Your task to perform on an android device: Search for seafood restaurants on Google Maps Image 0: 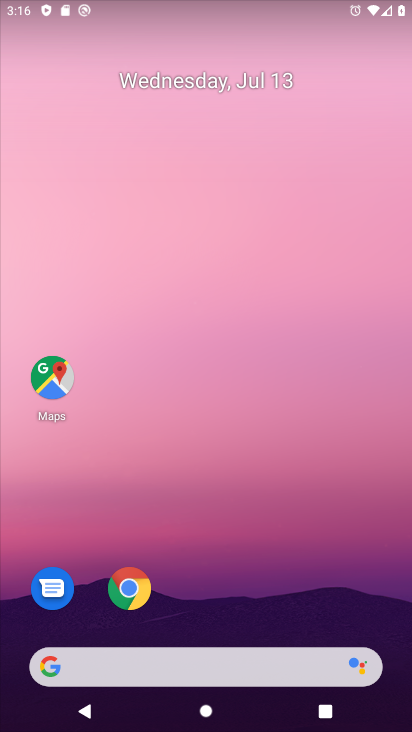
Step 0: drag from (294, 714) to (253, 147)
Your task to perform on an android device: Search for seafood restaurants on Google Maps Image 1: 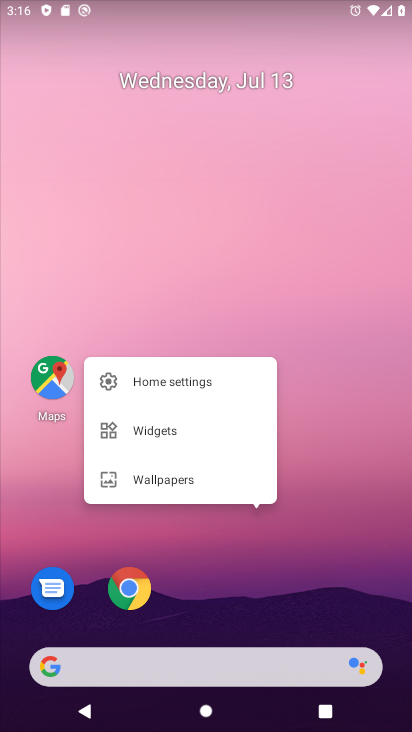
Step 1: drag from (273, 571) to (225, 149)
Your task to perform on an android device: Search for seafood restaurants on Google Maps Image 2: 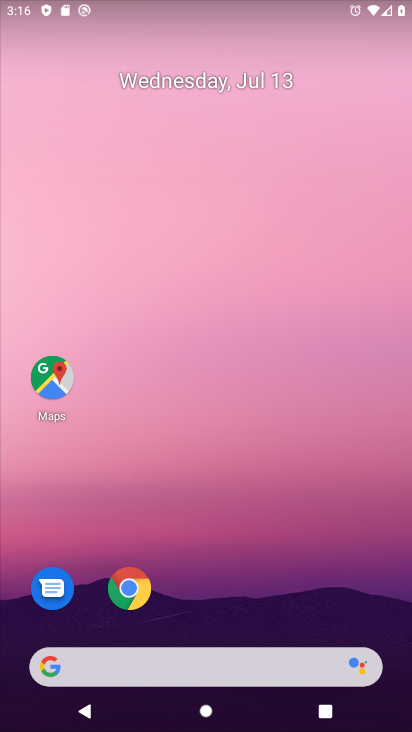
Step 2: drag from (190, 669) to (107, 127)
Your task to perform on an android device: Search for seafood restaurants on Google Maps Image 3: 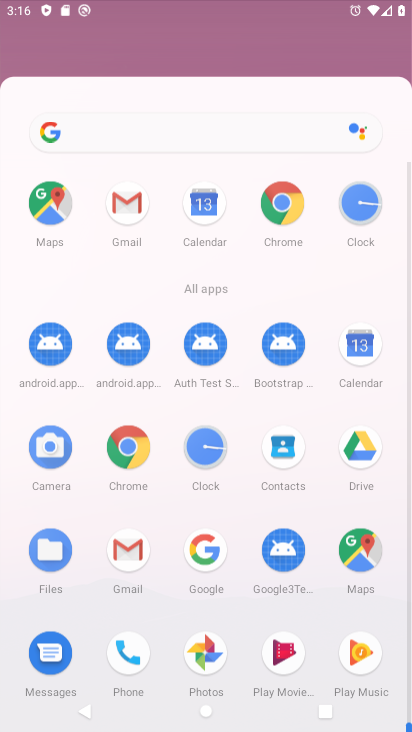
Step 3: drag from (304, 576) to (216, 23)
Your task to perform on an android device: Search for seafood restaurants on Google Maps Image 4: 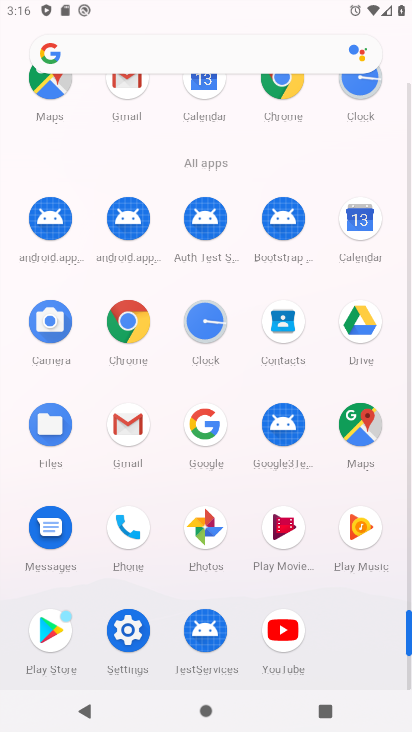
Step 4: click (340, 424)
Your task to perform on an android device: Search for seafood restaurants on Google Maps Image 5: 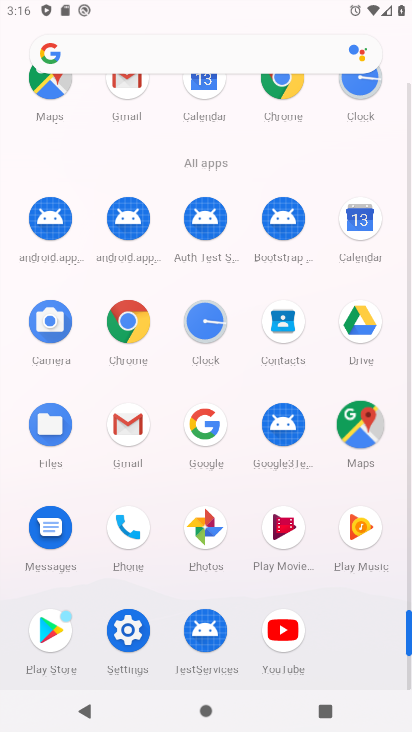
Step 5: click (344, 424)
Your task to perform on an android device: Search for seafood restaurants on Google Maps Image 6: 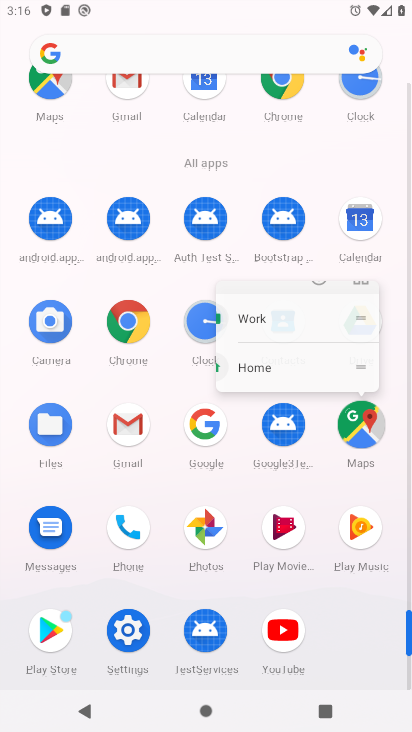
Step 6: click (345, 424)
Your task to perform on an android device: Search for seafood restaurants on Google Maps Image 7: 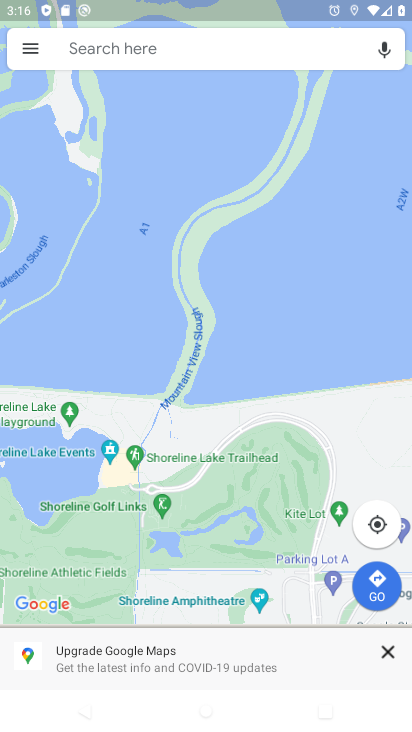
Step 7: click (68, 32)
Your task to perform on an android device: Search for seafood restaurants on Google Maps Image 8: 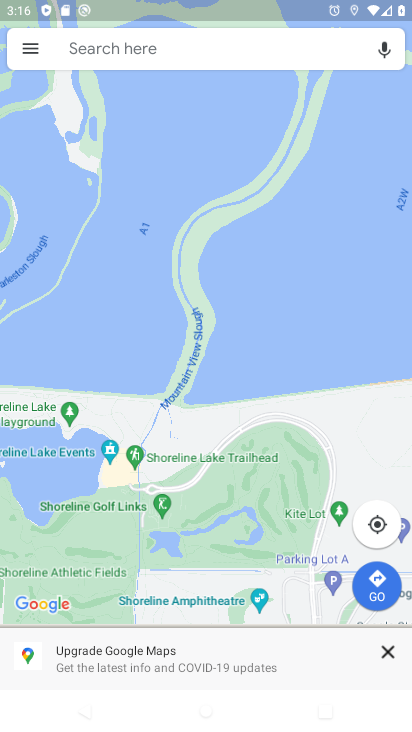
Step 8: click (68, 32)
Your task to perform on an android device: Search for seafood restaurants on Google Maps Image 9: 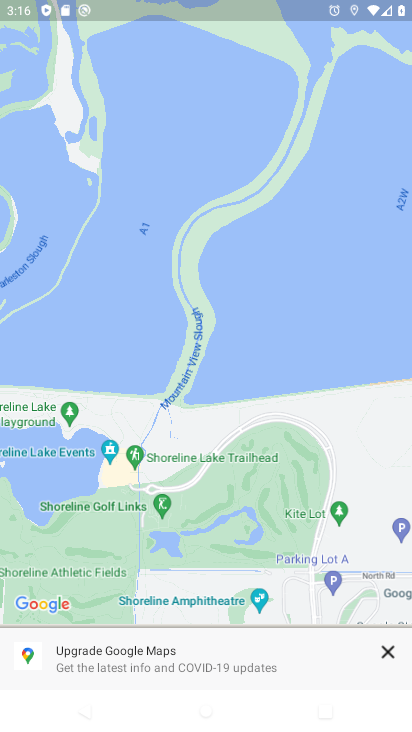
Step 9: drag from (222, 140) to (217, 574)
Your task to perform on an android device: Search for seafood restaurants on Google Maps Image 10: 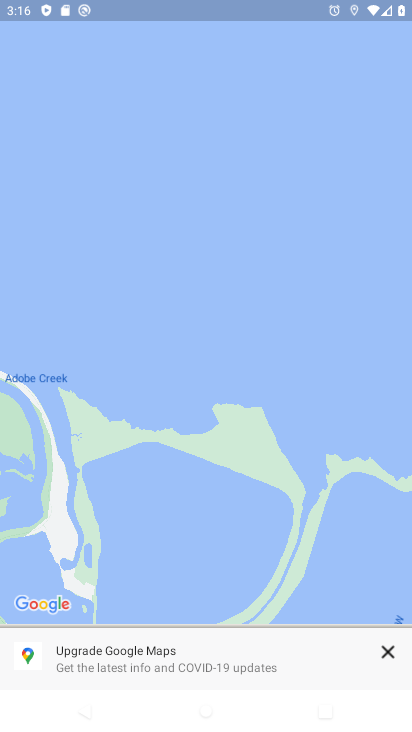
Step 10: click (145, 112)
Your task to perform on an android device: Search for seafood restaurants on Google Maps Image 11: 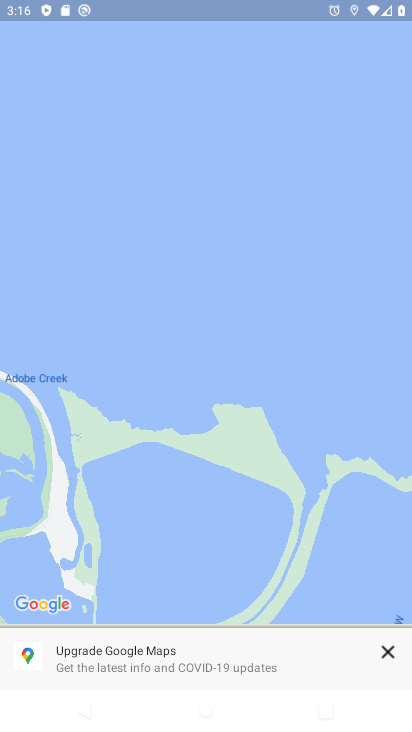
Step 11: click (145, 112)
Your task to perform on an android device: Search for seafood restaurants on Google Maps Image 12: 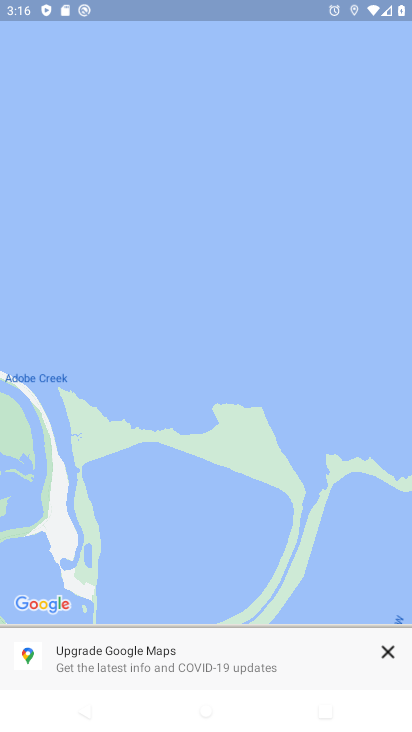
Step 12: click (147, 112)
Your task to perform on an android device: Search for seafood restaurants on Google Maps Image 13: 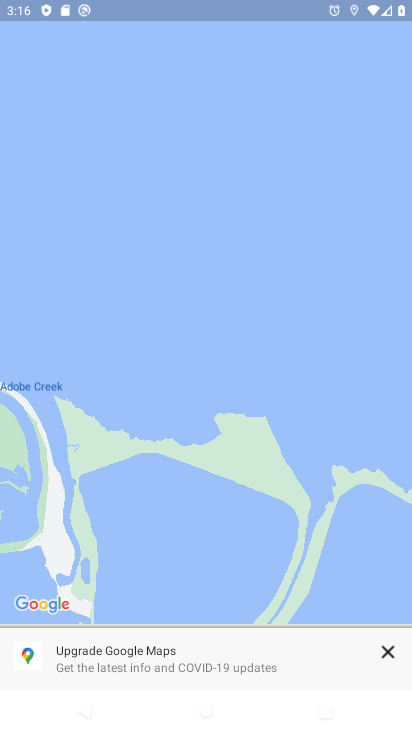
Step 13: click (150, 118)
Your task to perform on an android device: Search for seafood restaurants on Google Maps Image 14: 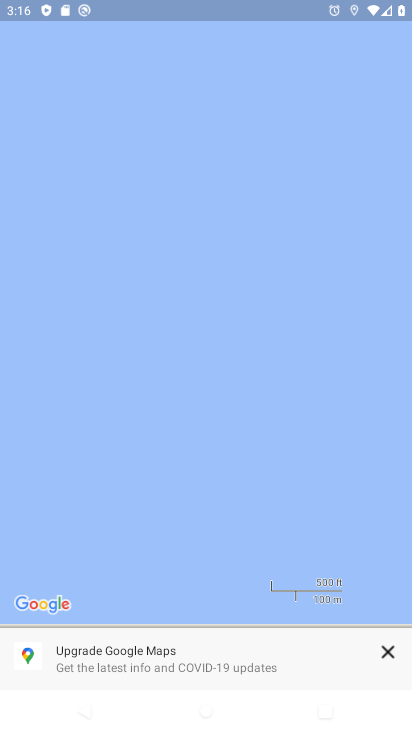
Step 14: click (175, 314)
Your task to perform on an android device: Search for seafood restaurants on Google Maps Image 15: 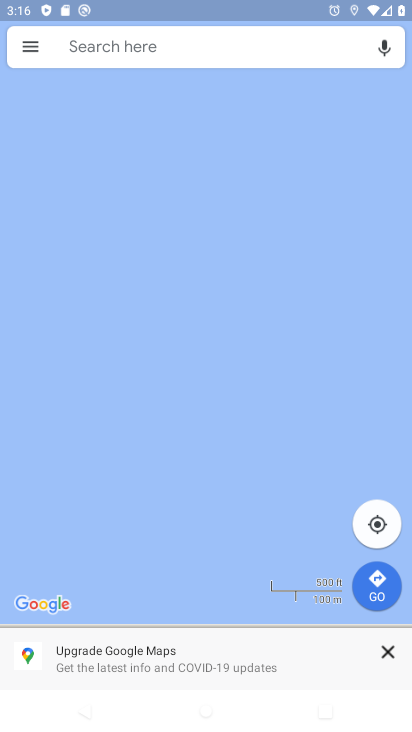
Step 15: click (187, 391)
Your task to perform on an android device: Search for seafood restaurants on Google Maps Image 16: 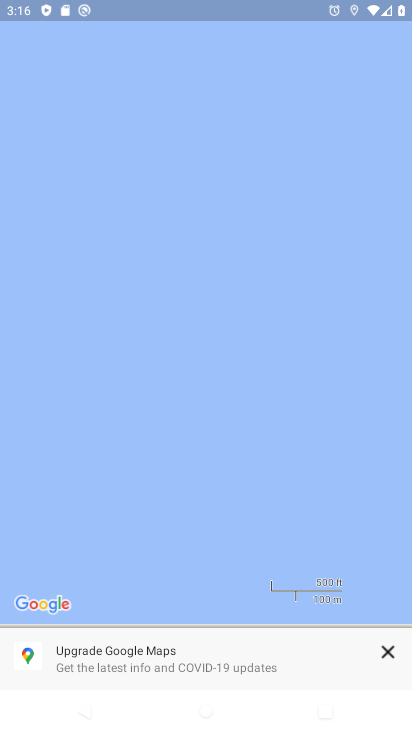
Step 16: click (198, 380)
Your task to perform on an android device: Search for seafood restaurants on Google Maps Image 17: 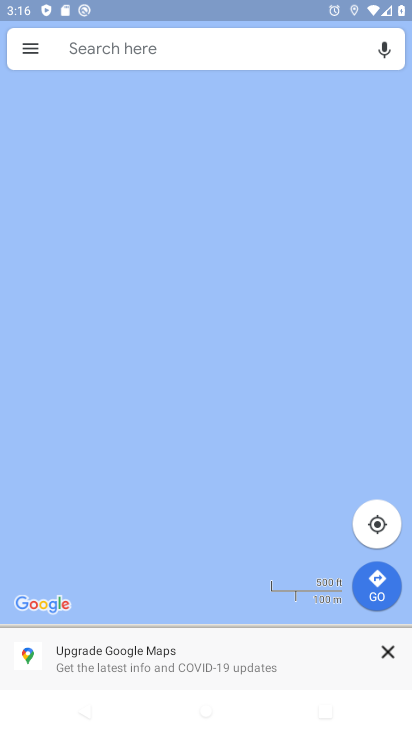
Step 17: click (127, 202)
Your task to perform on an android device: Search for seafood restaurants on Google Maps Image 18: 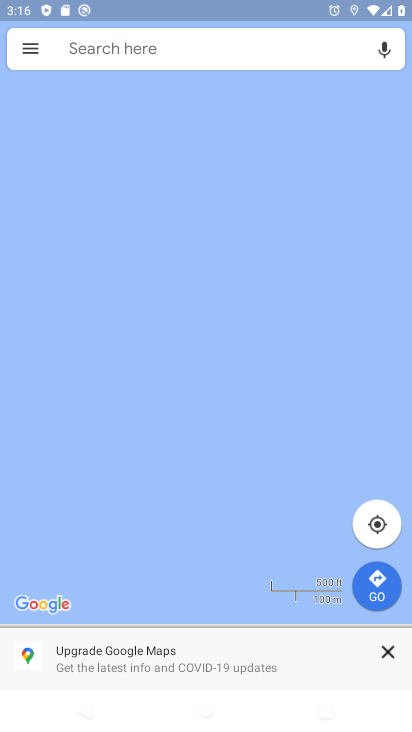
Step 18: click (129, 202)
Your task to perform on an android device: Search for seafood restaurants on Google Maps Image 19: 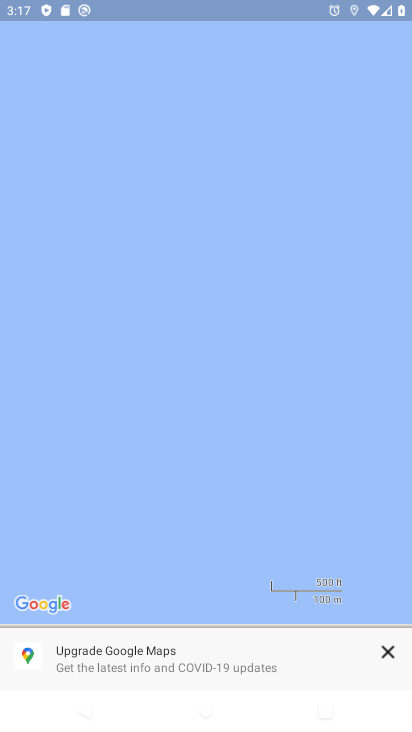
Step 19: click (85, 45)
Your task to perform on an android device: Search for seafood restaurants on Google Maps Image 20: 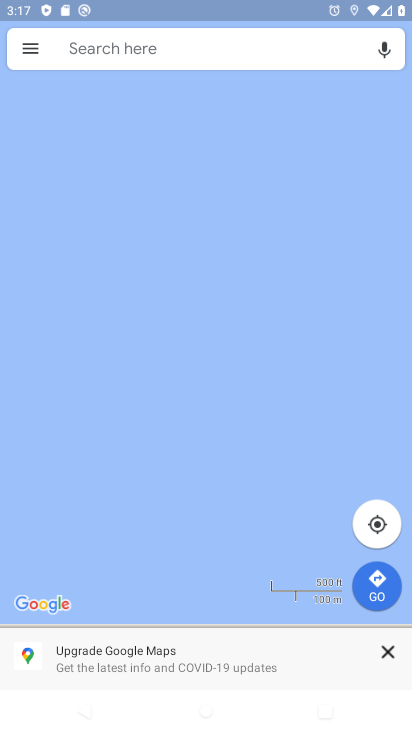
Step 20: click (102, 52)
Your task to perform on an android device: Search for seafood restaurants on Google Maps Image 21: 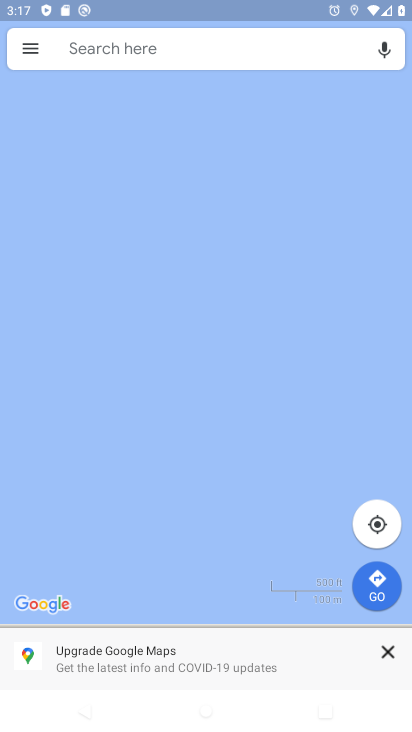
Step 21: click (102, 52)
Your task to perform on an android device: Search for seafood restaurants on Google Maps Image 22: 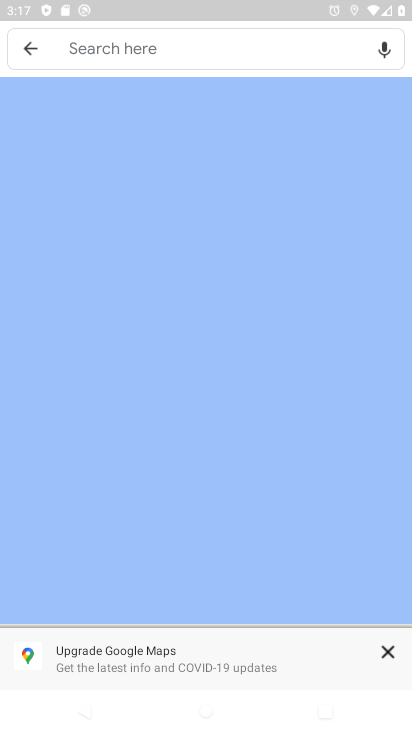
Step 22: click (71, 36)
Your task to perform on an android device: Search for seafood restaurants on Google Maps Image 23: 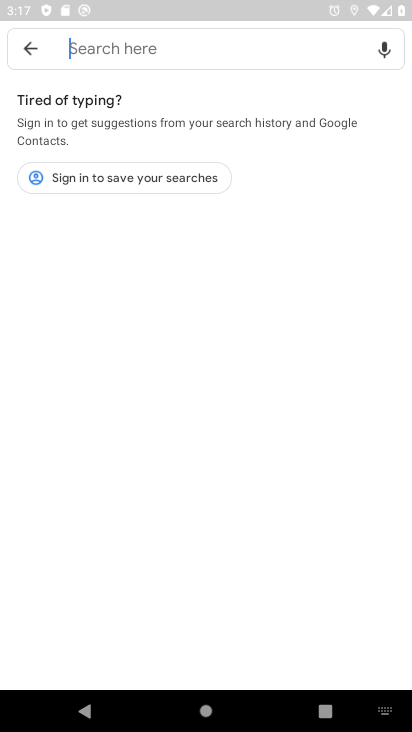
Step 23: click (81, 46)
Your task to perform on an android device: Search for seafood restaurants on Google Maps Image 24: 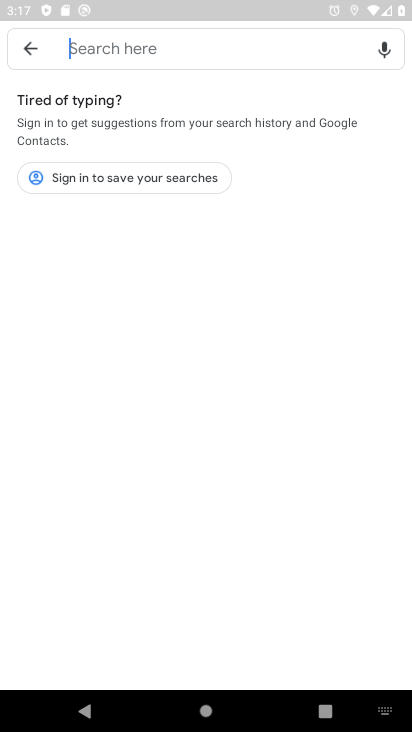
Step 24: type "seafood brestaurants"
Your task to perform on an android device: Search for seafood restaurants on Google Maps Image 25: 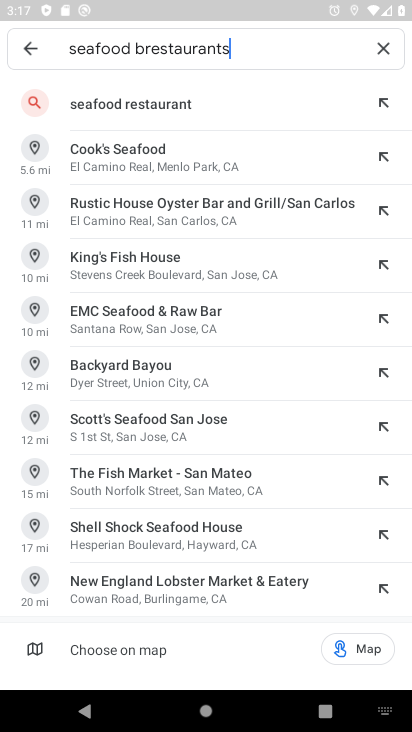
Step 25: click (125, 106)
Your task to perform on an android device: Search for seafood restaurants on Google Maps Image 26: 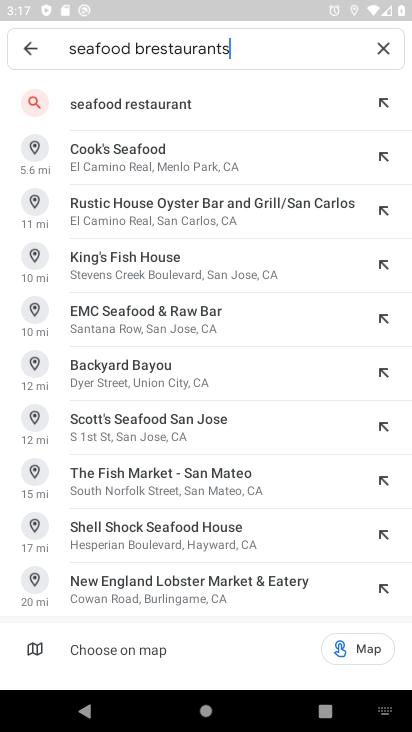
Step 26: click (125, 106)
Your task to perform on an android device: Search for seafood restaurants on Google Maps Image 27: 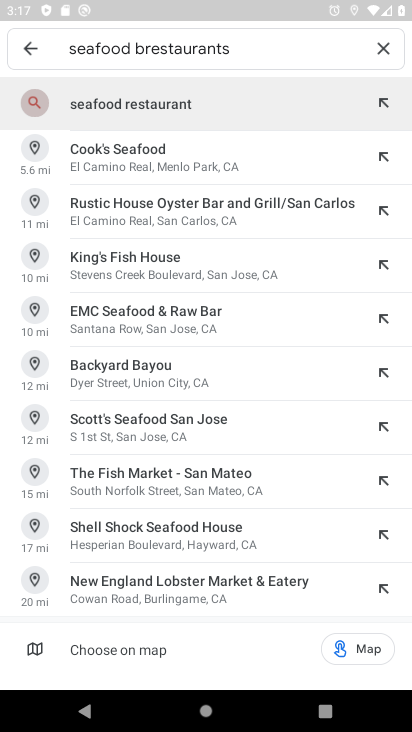
Step 27: click (125, 104)
Your task to perform on an android device: Search for seafood restaurants on Google Maps Image 28: 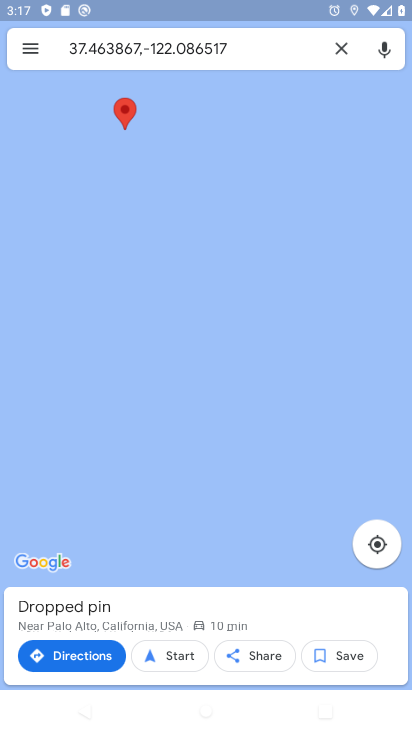
Step 28: task complete